Your task to perform on an android device: clear history in the chrome app Image 0: 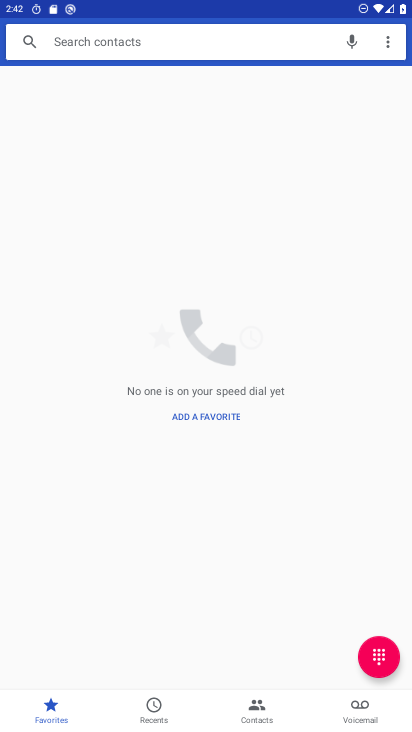
Step 0: press home button
Your task to perform on an android device: clear history in the chrome app Image 1: 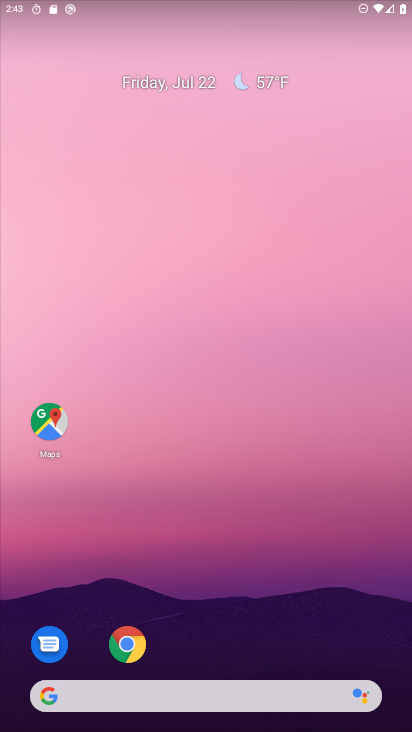
Step 1: click (112, 635)
Your task to perform on an android device: clear history in the chrome app Image 2: 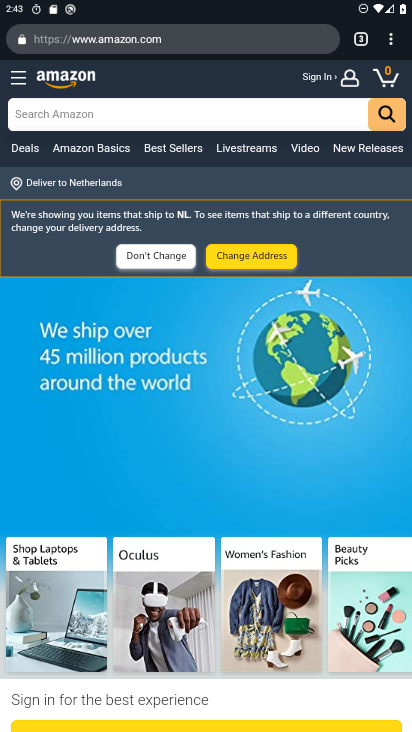
Step 2: click (383, 47)
Your task to perform on an android device: clear history in the chrome app Image 3: 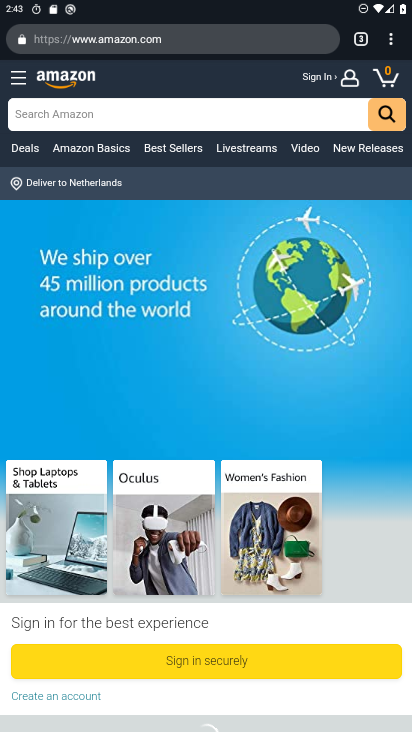
Step 3: drag from (388, 35) to (274, 261)
Your task to perform on an android device: clear history in the chrome app Image 4: 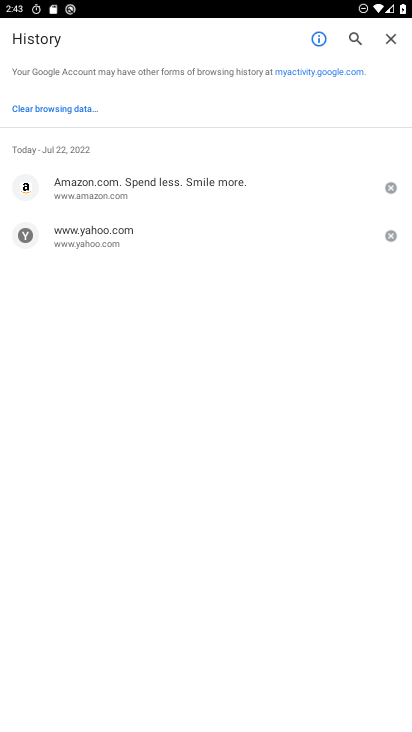
Step 4: click (75, 111)
Your task to perform on an android device: clear history in the chrome app Image 5: 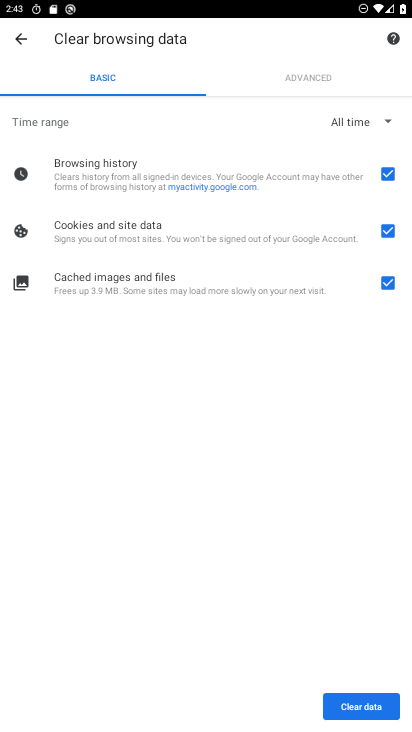
Step 5: click (361, 709)
Your task to perform on an android device: clear history in the chrome app Image 6: 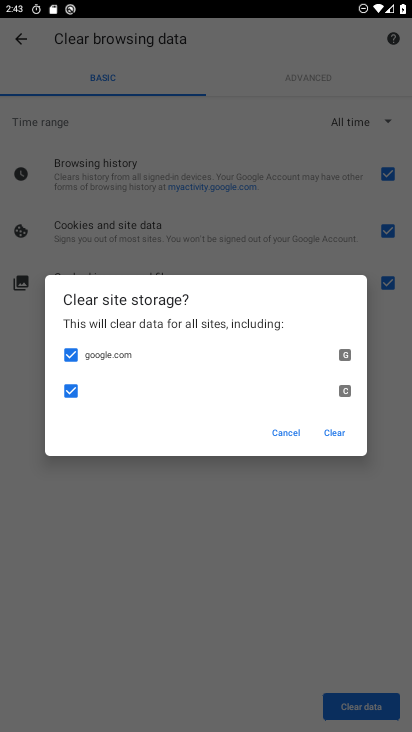
Step 6: click (329, 435)
Your task to perform on an android device: clear history in the chrome app Image 7: 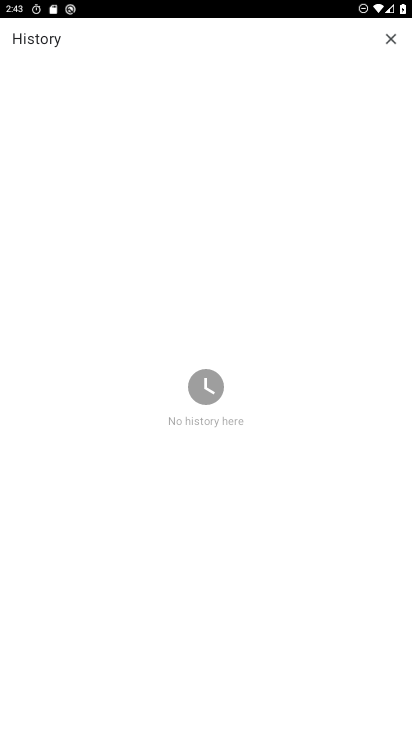
Step 7: task complete